Your task to perform on an android device: check storage Image 0: 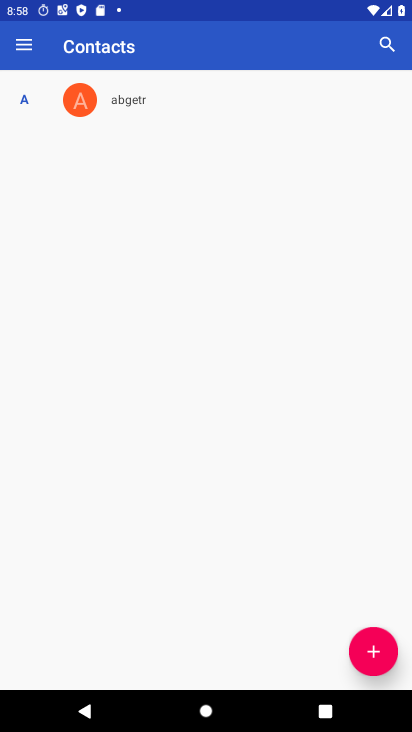
Step 0: press home button
Your task to perform on an android device: check storage Image 1: 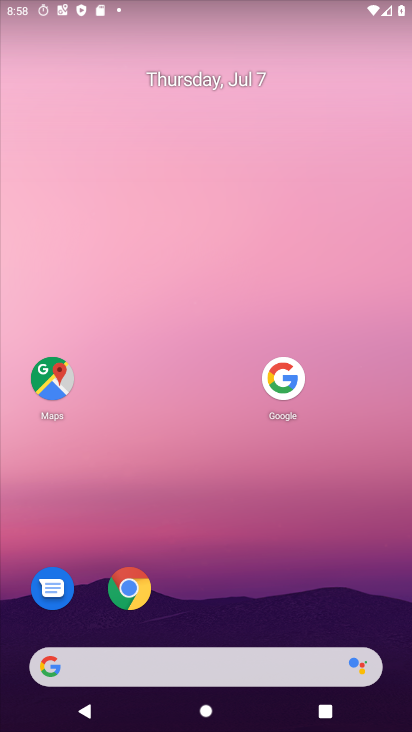
Step 1: drag from (174, 665) to (256, 83)
Your task to perform on an android device: check storage Image 2: 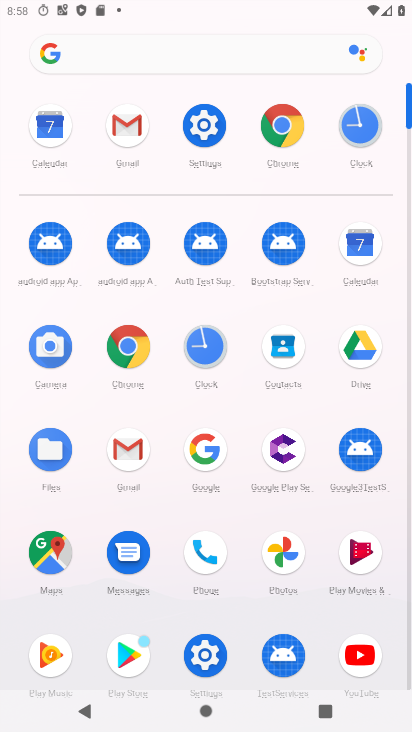
Step 2: click (203, 131)
Your task to perform on an android device: check storage Image 3: 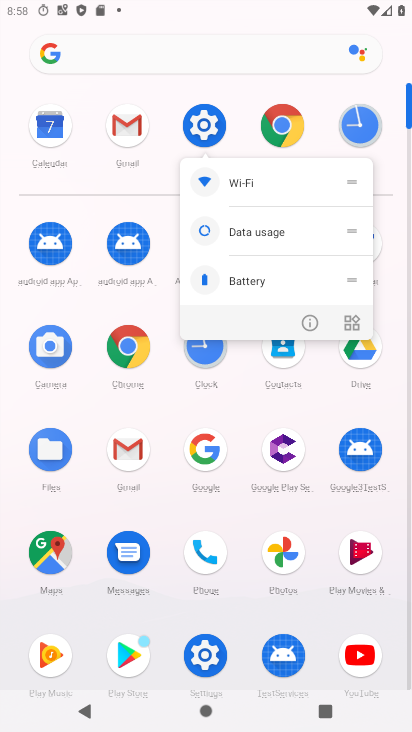
Step 3: click (196, 122)
Your task to perform on an android device: check storage Image 4: 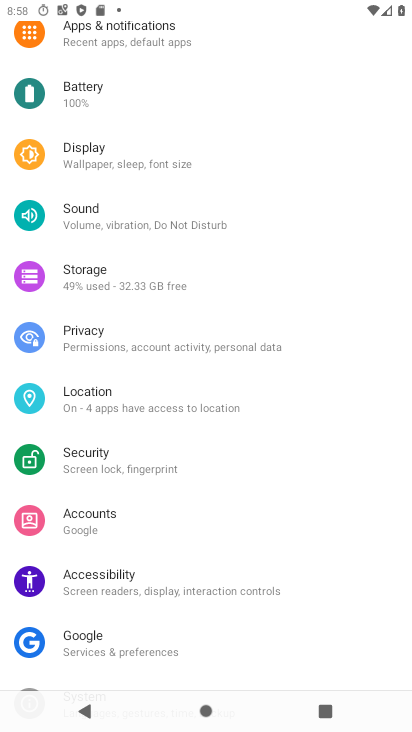
Step 4: click (119, 283)
Your task to perform on an android device: check storage Image 5: 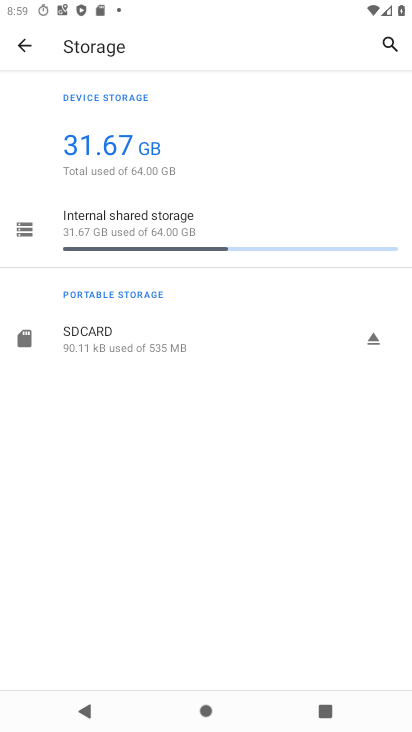
Step 5: task complete